Your task to perform on an android device: find photos in the google photos app Image 0: 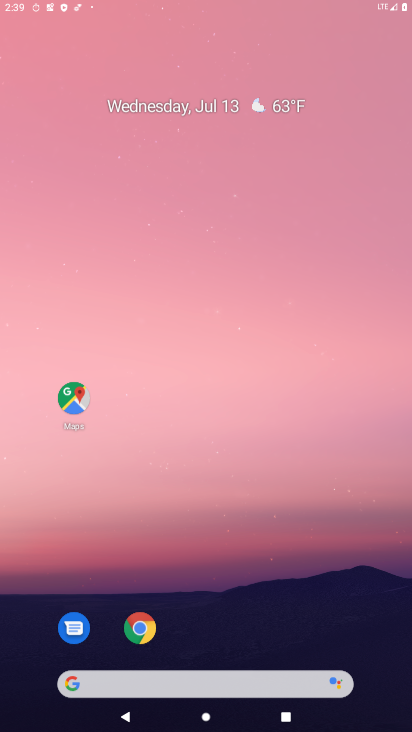
Step 0: click (296, 197)
Your task to perform on an android device: find photos in the google photos app Image 1: 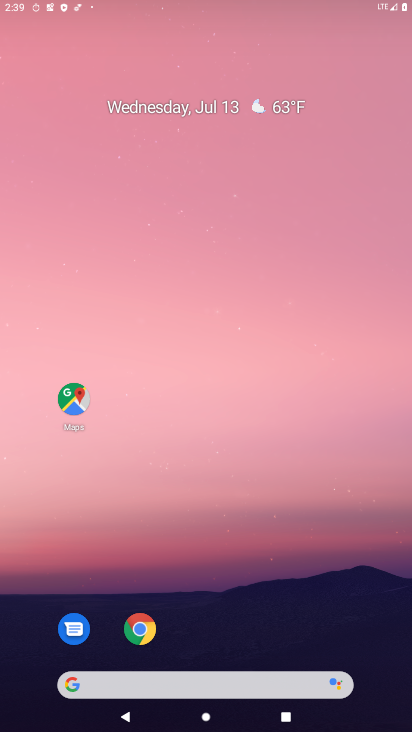
Step 1: drag from (197, 606) to (240, 53)
Your task to perform on an android device: find photos in the google photos app Image 2: 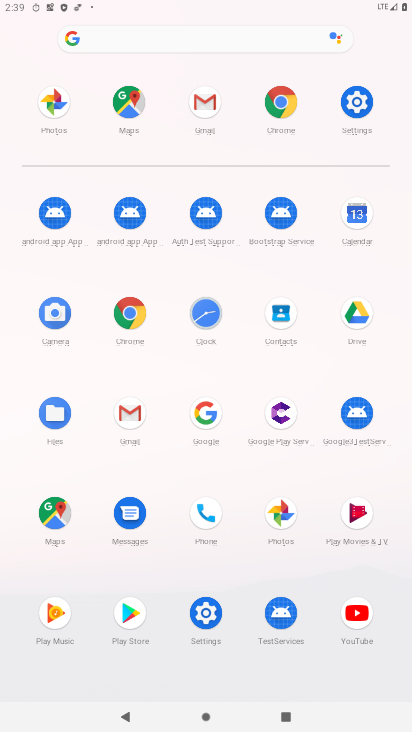
Step 2: click (286, 517)
Your task to perform on an android device: find photos in the google photos app Image 3: 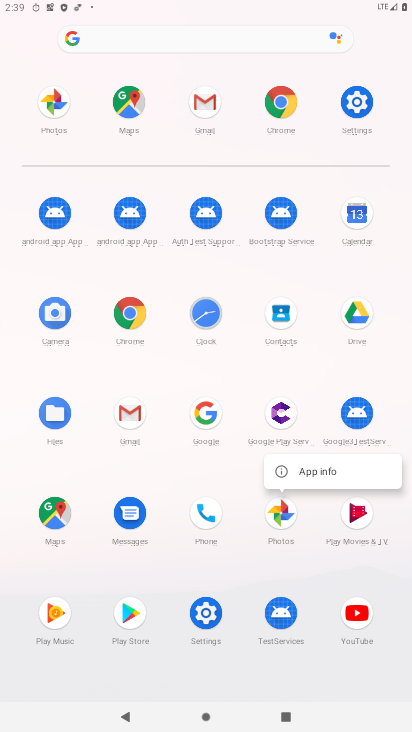
Step 3: click (301, 475)
Your task to perform on an android device: find photos in the google photos app Image 4: 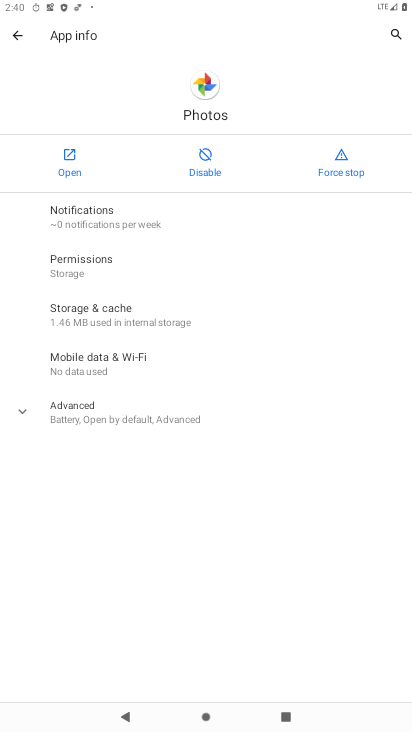
Step 4: drag from (208, 505) to (136, 209)
Your task to perform on an android device: find photos in the google photos app Image 5: 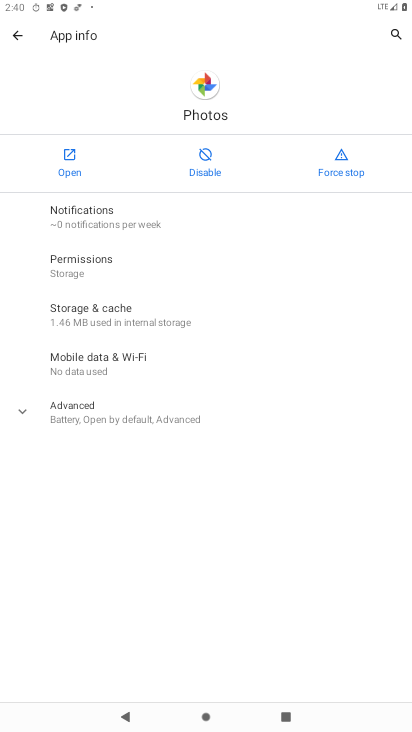
Step 5: click (65, 158)
Your task to perform on an android device: find photos in the google photos app Image 6: 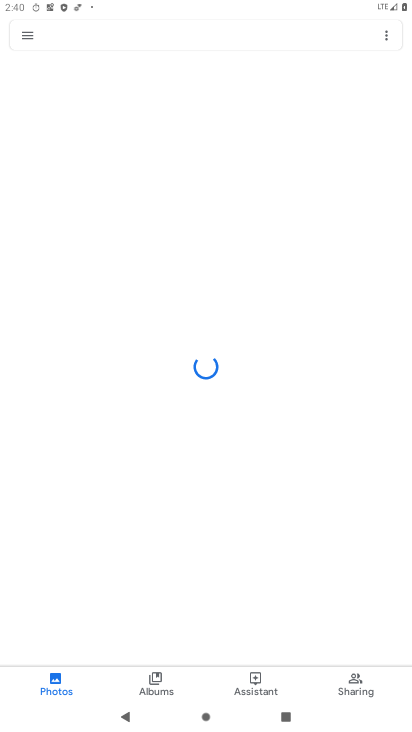
Step 6: drag from (176, 446) to (205, 165)
Your task to perform on an android device: find photos in the google photos app Image 7: 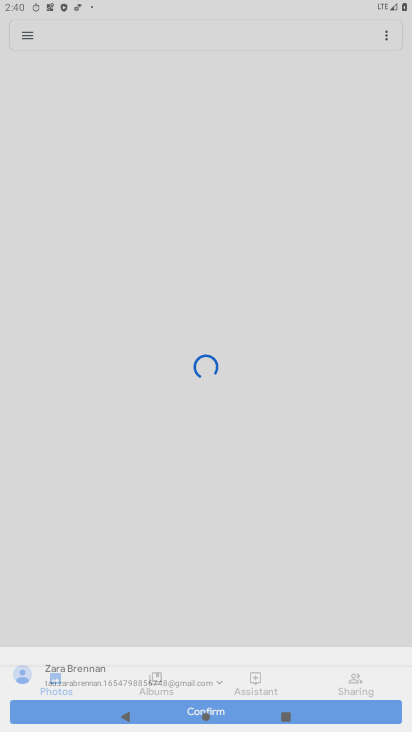
Step 7: drag from (175, 197) to (253, 520)
Your task to perform on an android device: find photos in the google photos app Image 8: 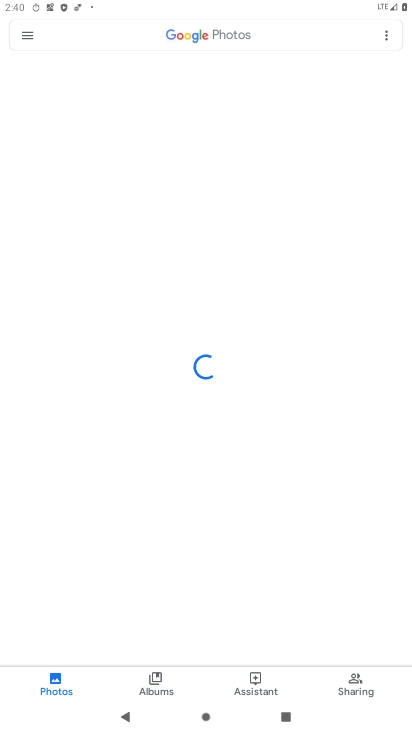
Step 8: click (199, 652)
Your task to perform on an android device: find photos in the google photos app Image 9: 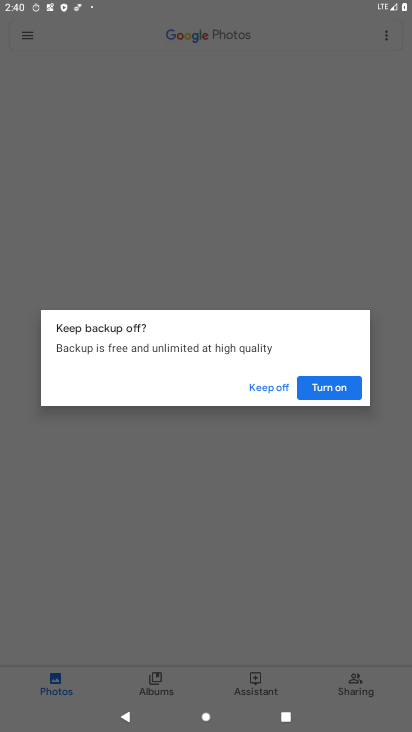
Step 9: click (315, 382)
Your task to perform on an android device: find photos in the google photos app Image 10: 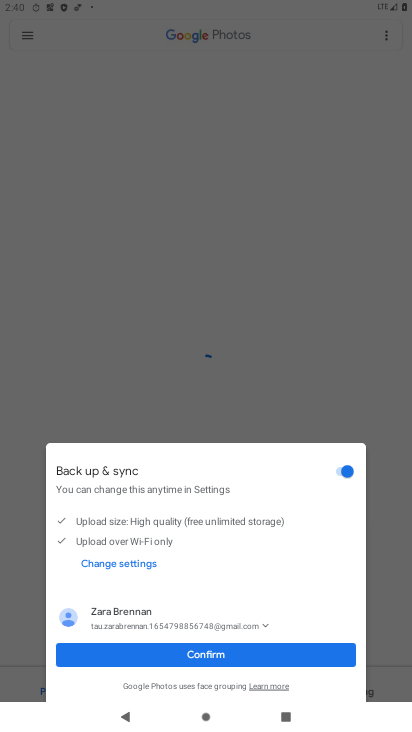
Step 10: drag from (195, 475) to (254, 158)
Your task to perform on an android device: find photos in the google photos app Image 11: 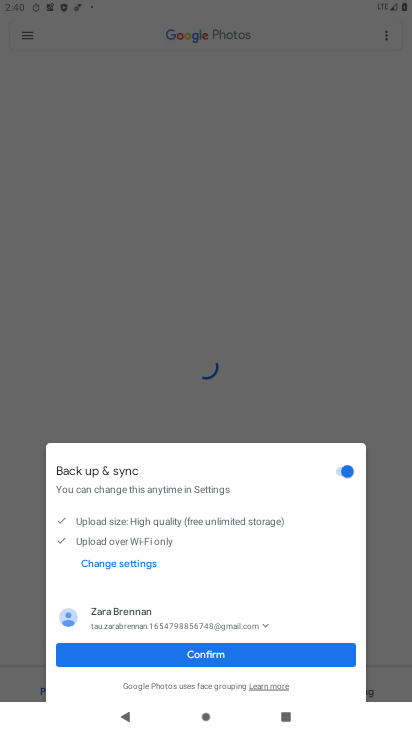
Step 11: click (184, 673)
Your task to perform on an android device: find photos in the google photos app Image 12: 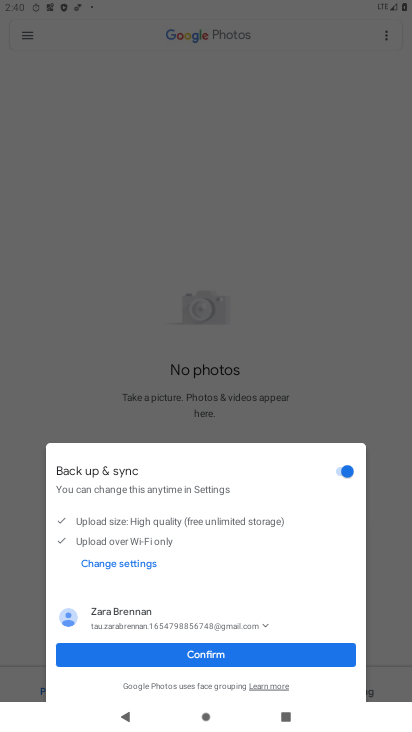
Step 12: click (174, 661)
Your task to perform on an android device: find photos in the google photos app Image 13: 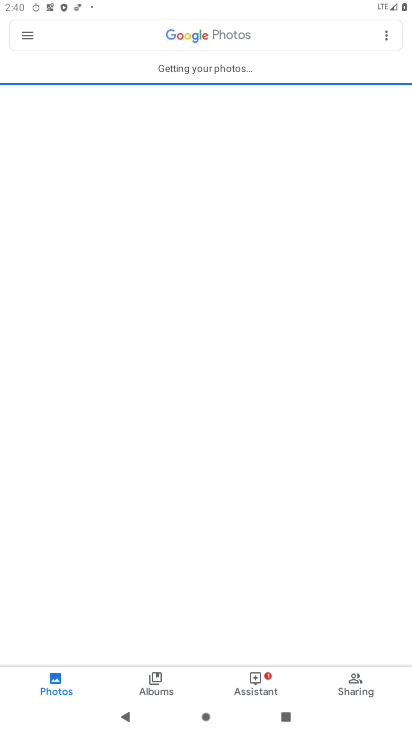
Step 13: drag from (190, 612) to (197, 272)
Your task to perform on an android device: find photos in the google photos app Image 14: 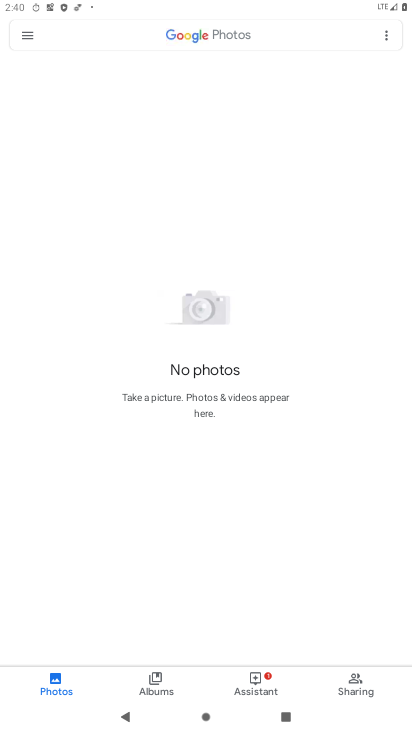
Step 14: drag from (198, 226) to (263, 490)
Your task to perform on an android device: find photos in the google photos app Image 15: 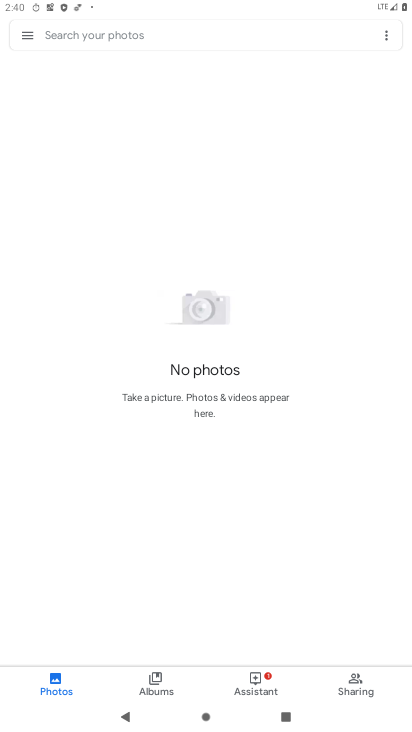
Step 15: drag from (194, 306) to (269, 626)
Your task to perform on an android device: find photos in the google photos app Image 16: 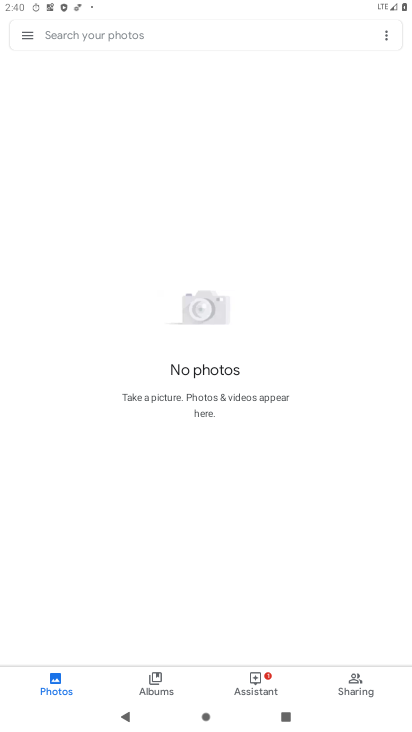
Step 16: click (170, 275)
Your task to perform on an android device: find photos in the google photos app Image 17: 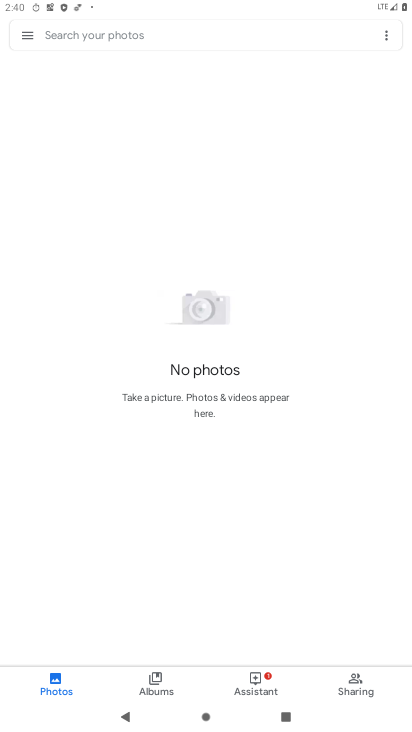
Step 17: click (168, 274)
Your task to perform on an android device: find photos in the google photos app Image 18: 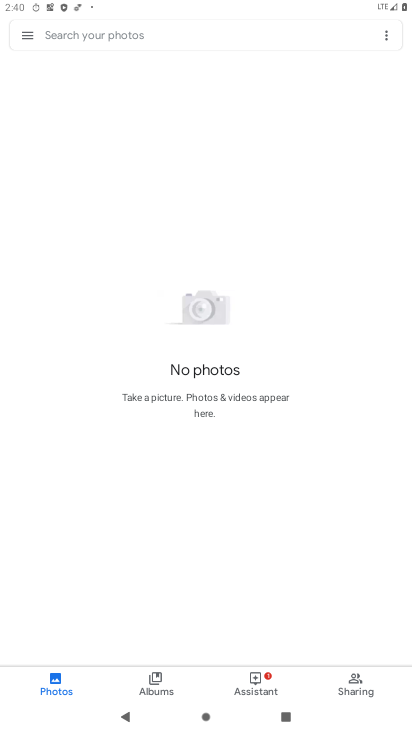
Step 18: click (179, 274)
Your task to perform on an android device: find photos in the google photos app Image 19: 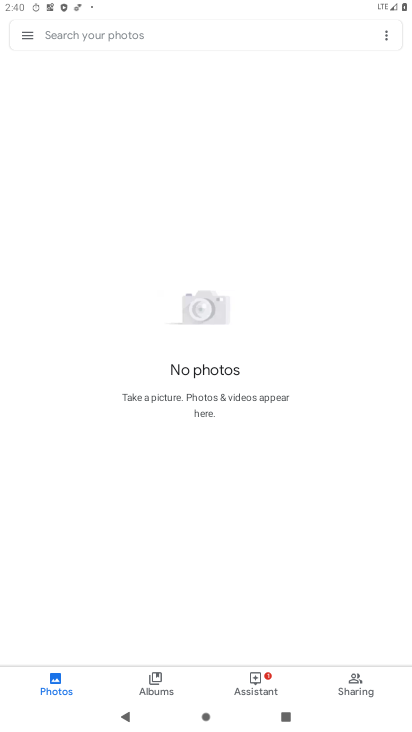
Step 19: task complete